Your task to perform on an android device: toggle notification dots Image 0: 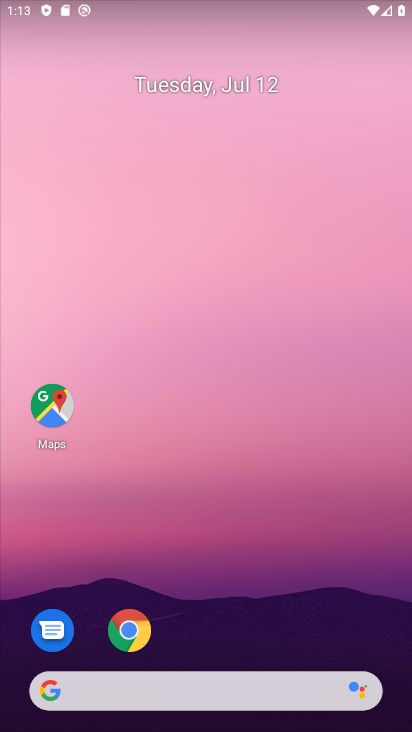
Step 0: drag from (193, 672) to (193, 183)
Your task to perform on an android device: toggle notification dots Image 1: 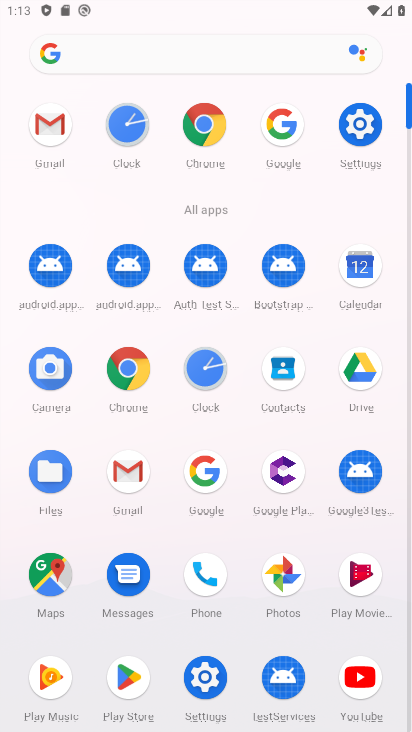
Step 1: click (363, 125)
Your task to perform on an android device: toggle notification dots Image 2: 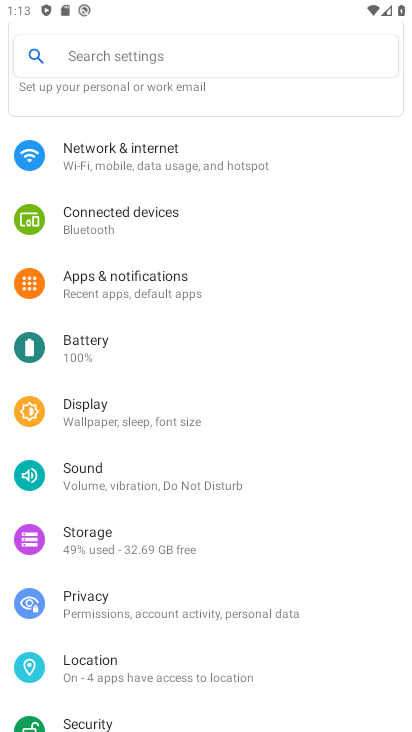
Step 2: click (99, 286)
Your task to perform on an android device: toggle notification dots Image 3: 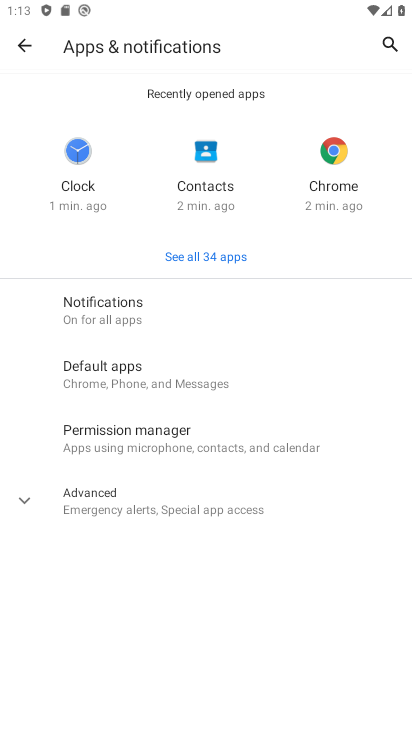
Step 3: click (97, 293)
Your task to perform on an android device: toggle notification dots Image 4: 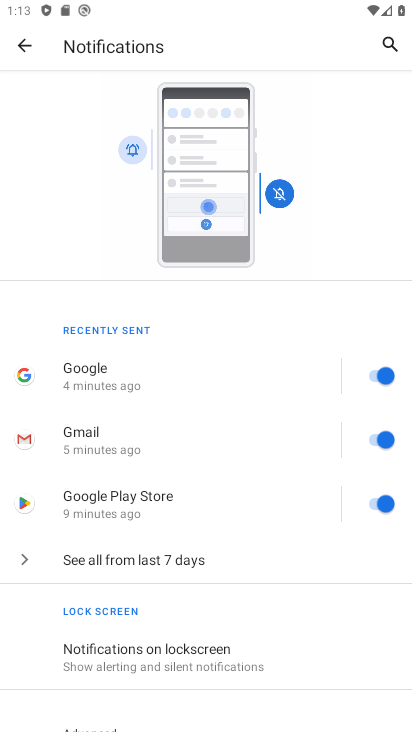
Step 4: drag from (195, 675) to (154, 243)
Your task to perform on an android device: toggle notification dots Image 5: 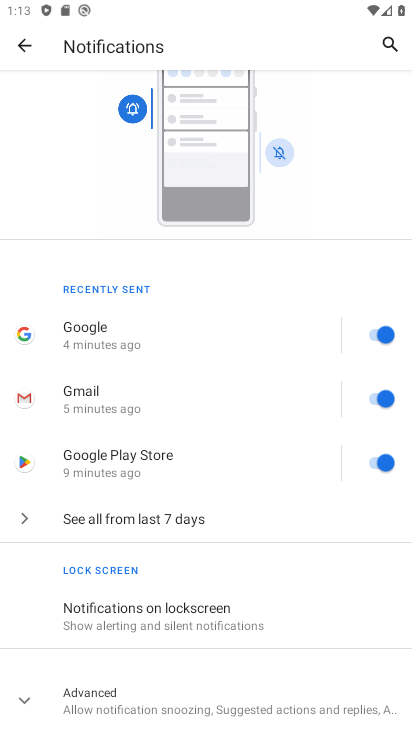
Step 5: click (157, 672)
Your task to perform on an android device: toggle notification dots Image 6: 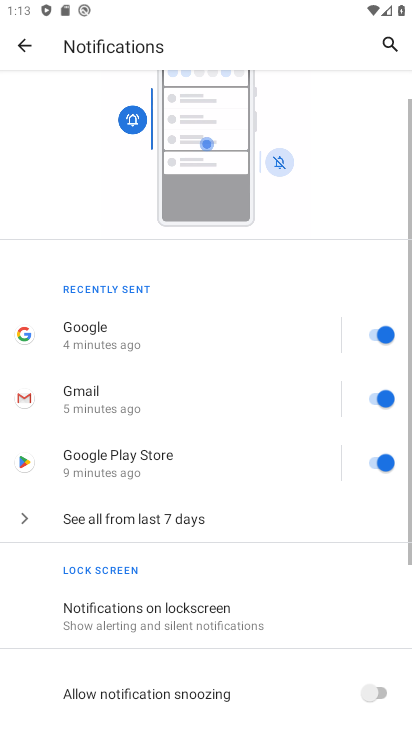
Step 6: task complete